Your task to perform on an android device: Open battery settings Image 0: 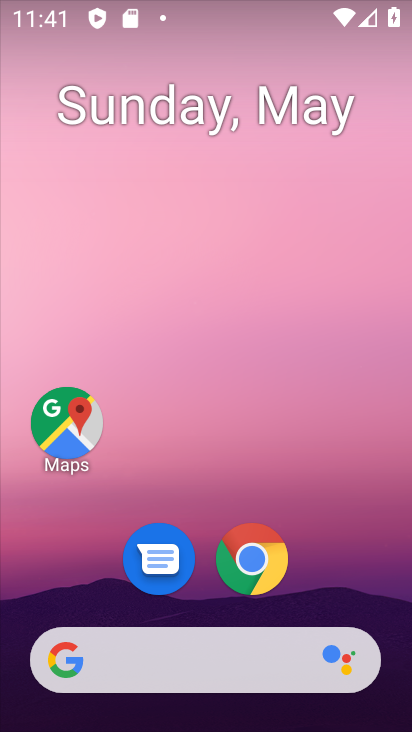
Step 0: drag from (199, 659) to (238, 42)
Your task to perform on an android device: Open battery settings Image 1: 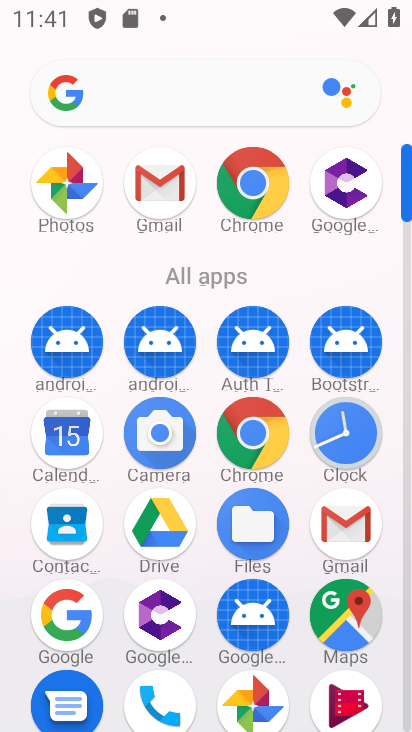
Step 1: drag from (170, 535) to (247, 107)
Your task to perform on an android device: Open battery settings Image 2: 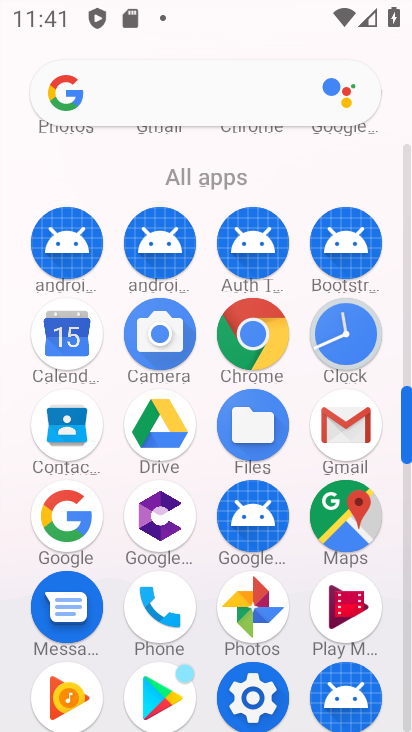
Step 2: click (265, 684)
Your task to perform on an android device: Open battery settings Image 3: 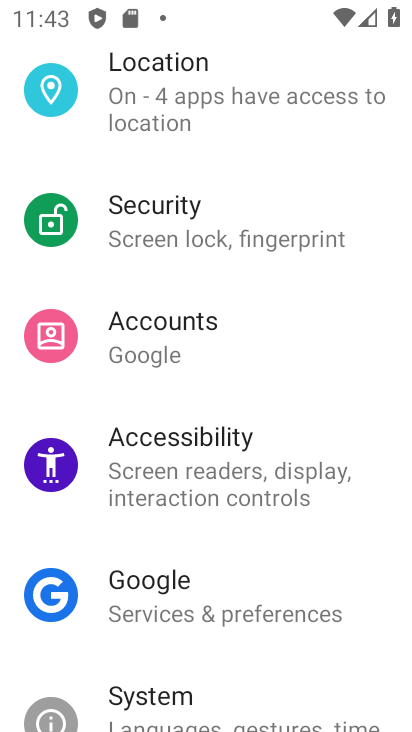
Step 3: drag from (212, 138) to (352, 729)
Your task to perform on an android device: Open battery settings Image 4: 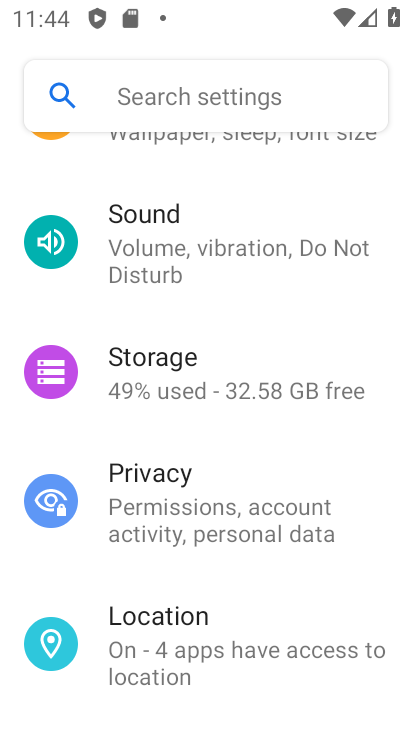
Step 4: drag from (233, 640) to (231, 126)
Your task to perform on an android device: Open battery settings Image 5: 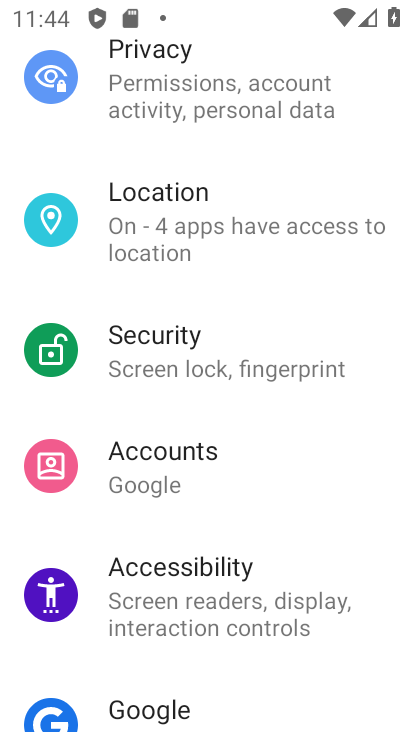
Step 5: drag from (264, 222) to (175, 692)
Your task to perform on an android device: Open battery settings Image 6: 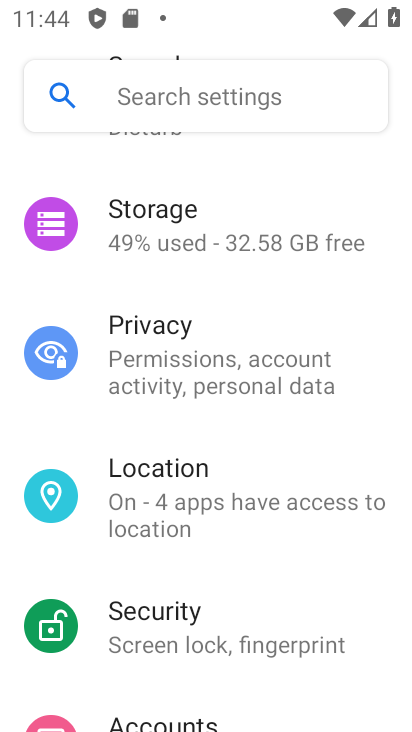
Step 6: drag from (341, 166) to (272, 678)
Your task to perform on an android device: Open battery settings Image 7: 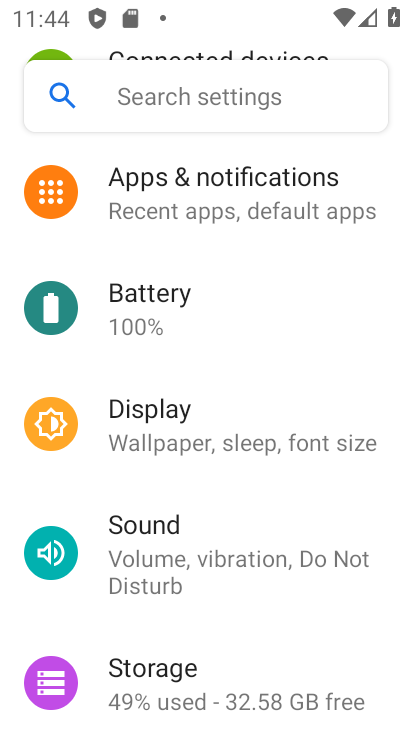
Step 7: click (196, 301)
Your task to perform on an android device: Open battery settings Image 8: 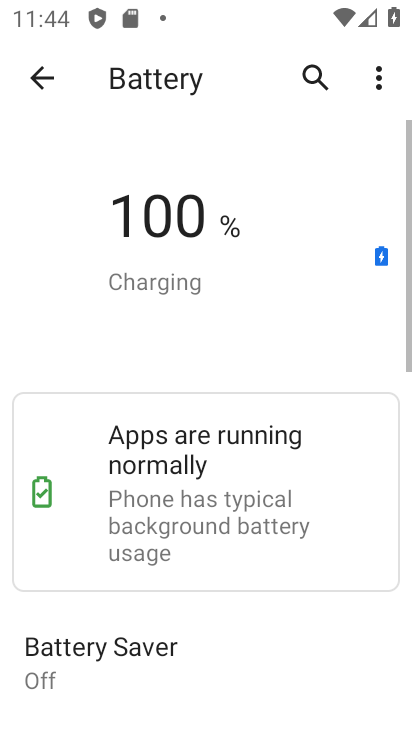
Step 8: click (376, 82)
Your task to perform on an android device: Open battery settings Image 9: 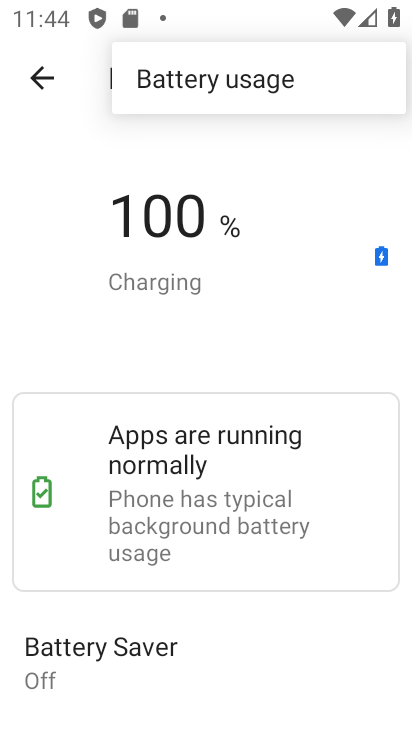
Step 9: task complete